Your task to perform on an android device: Open Yahoo.com Image 0: 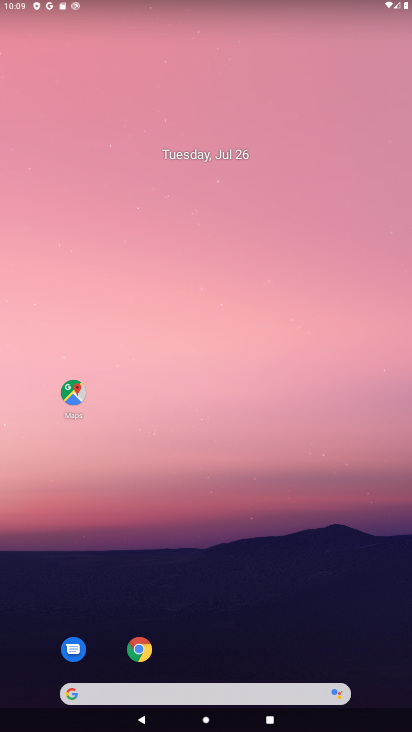
Step 0: click (135, 651)
Your task to perform on an android device: Open Yahoo.com Image 1: 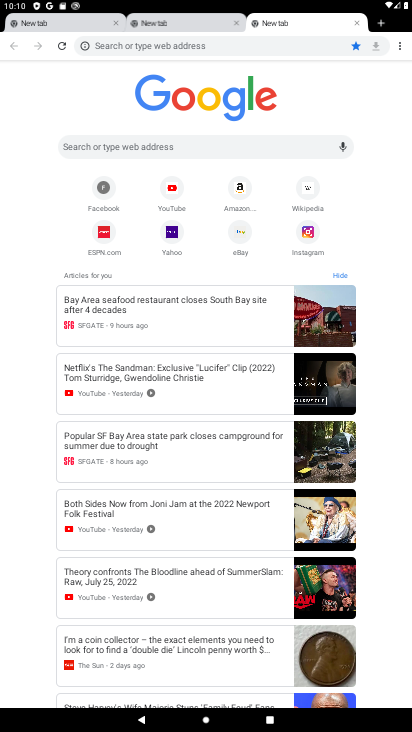
Step 1: click (172, 230)
Your task to perform on an android device: Open Yahoo.com Image 2: 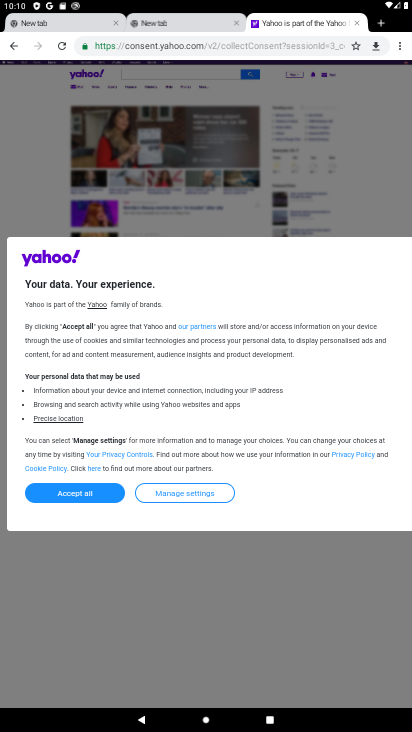
Step 2: task complete